Your task to perform on an android device: Show me productivity apps on the Play Store Image 0: 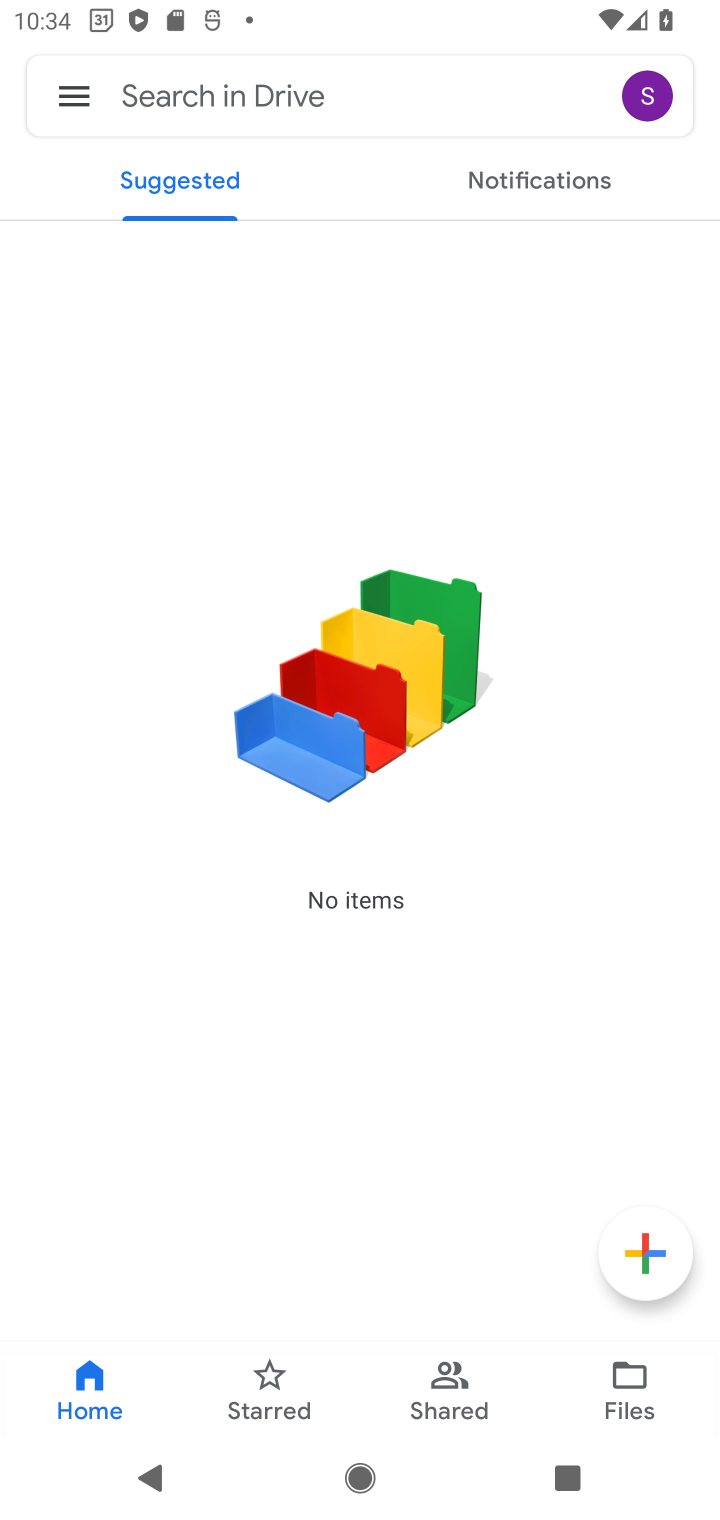
Step 0: press home button
Your task to perform on an android device: Show me productivity apps on the Play Store Image 1: 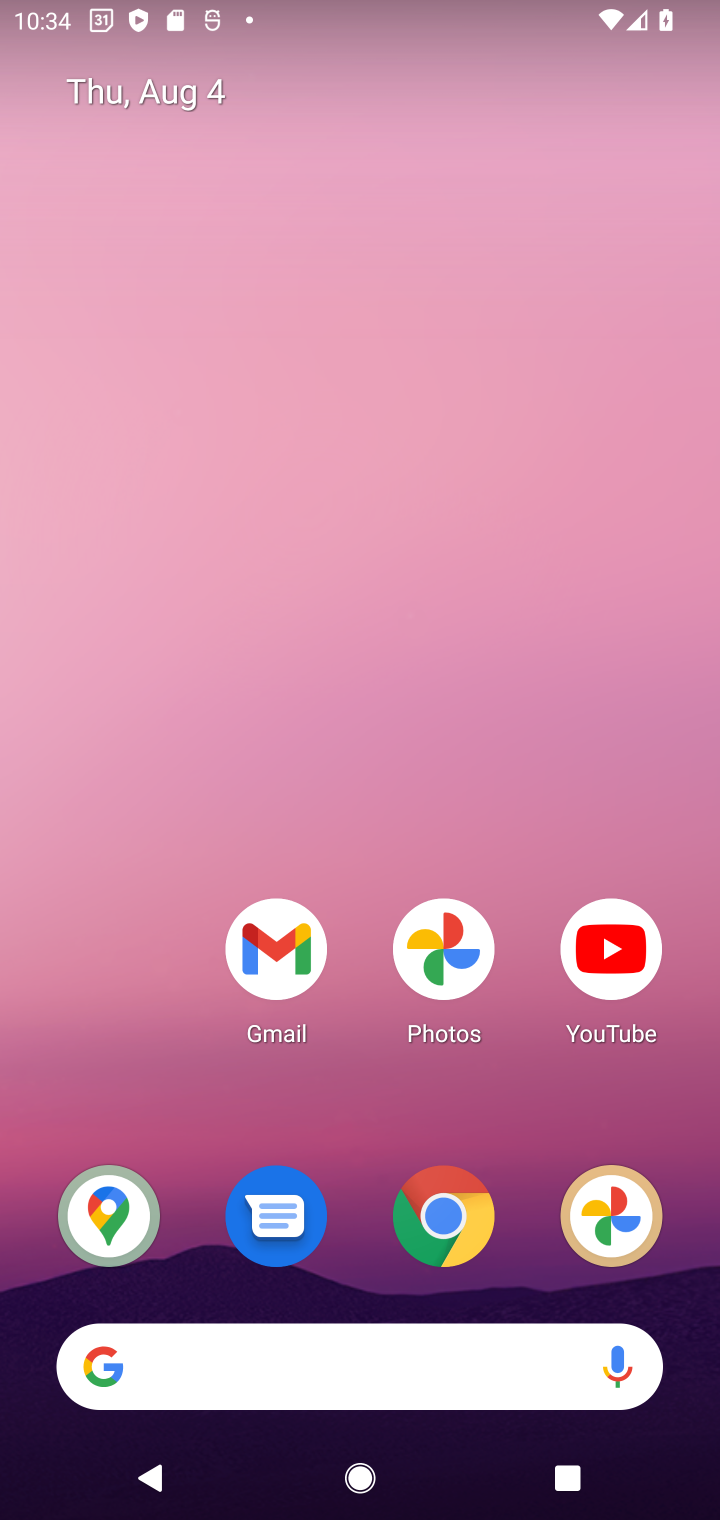
Step 1: drag from (304, 1384) to (452, 365)
Your task to perform on an android device: Show me productivity apps on the Play Store Image 2: 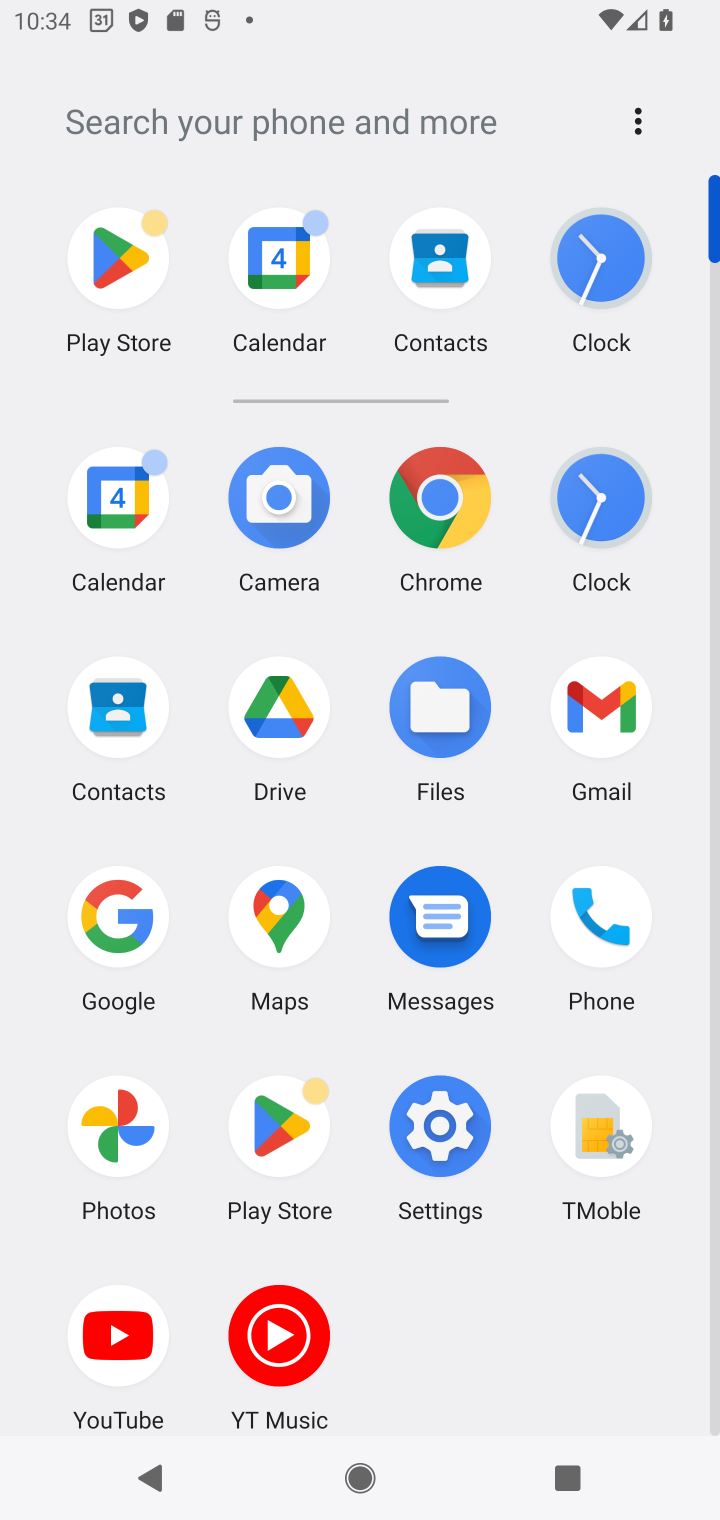
Step 2: click (287, 1125)
Your task to perform on an android device: Show me productivity apps on the Play Store Image 3: 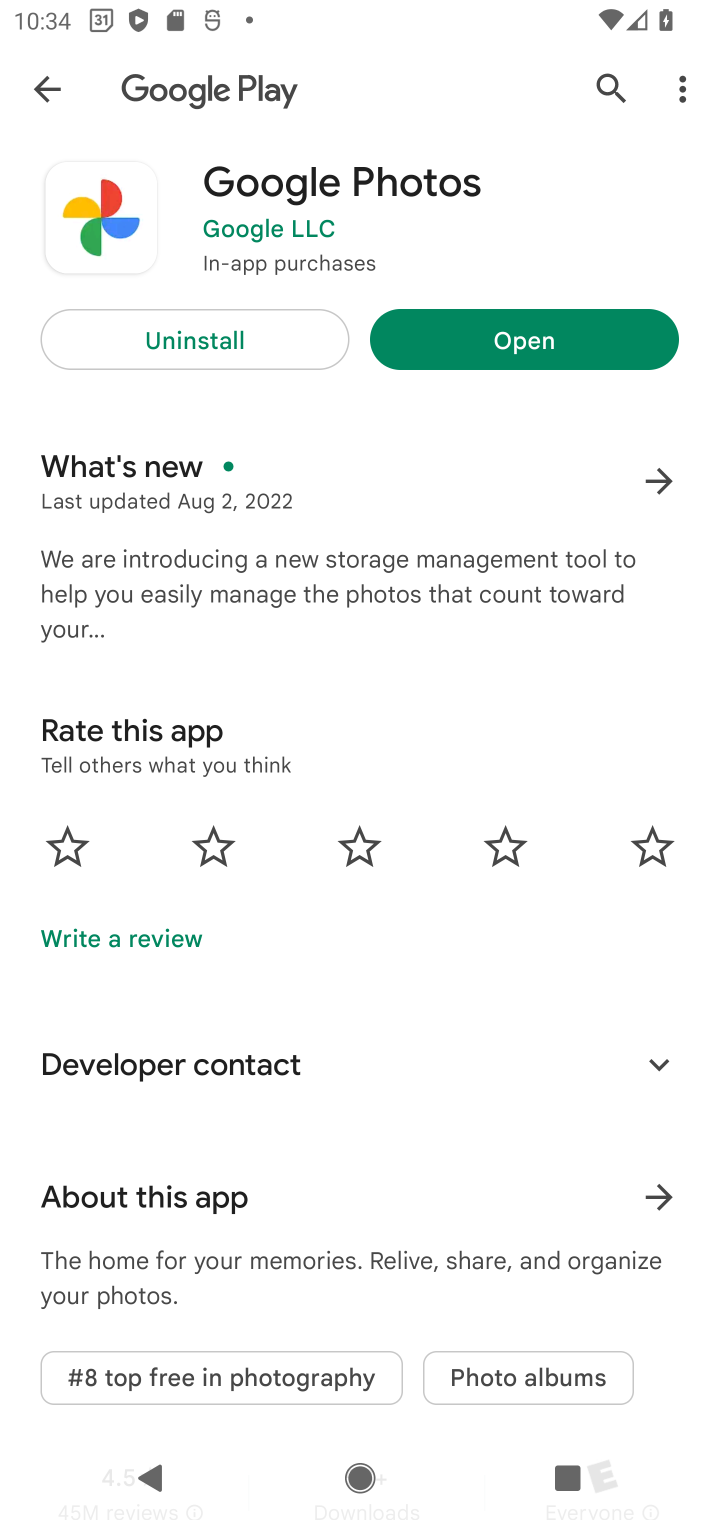
Step 3: press back button
Your task to perform on an android device: Show me productivity apps on the Play Store Image 4: 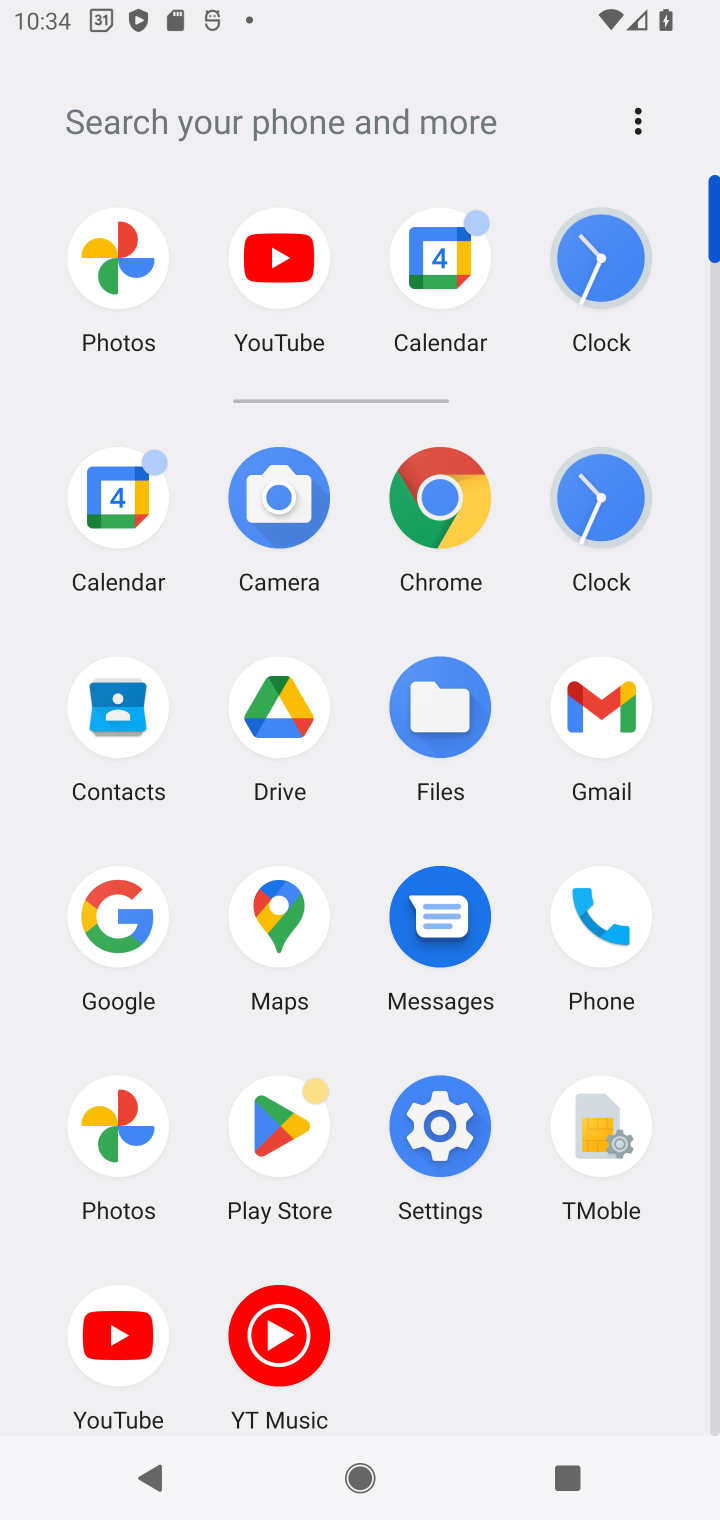
Step 4: click (282, 1131)
Your task to perform on an android device: Show me productivity apps on the Play Store Image 5: 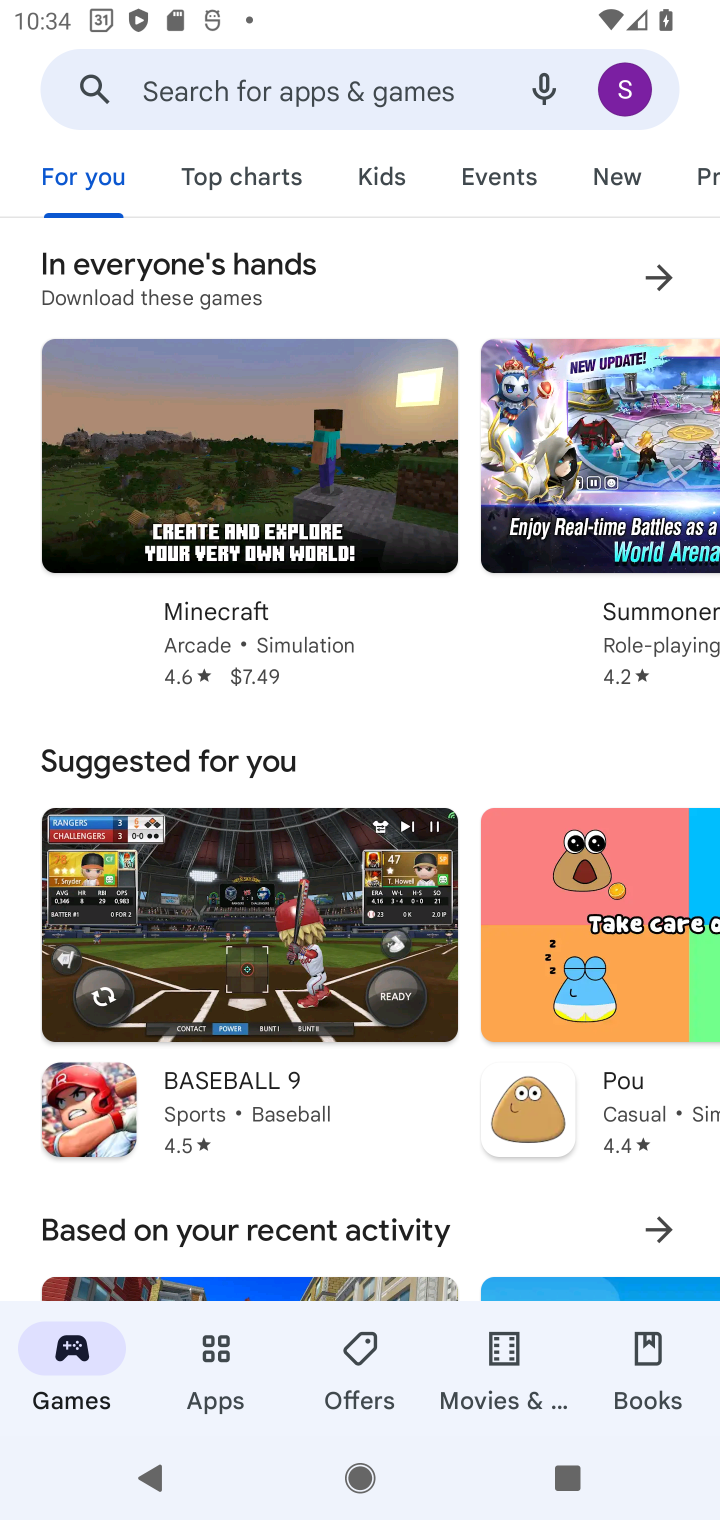
Step 5: click (203, 1355)
Your task to perform on an android device: Show me productivity apps on the Play Store Image 6: 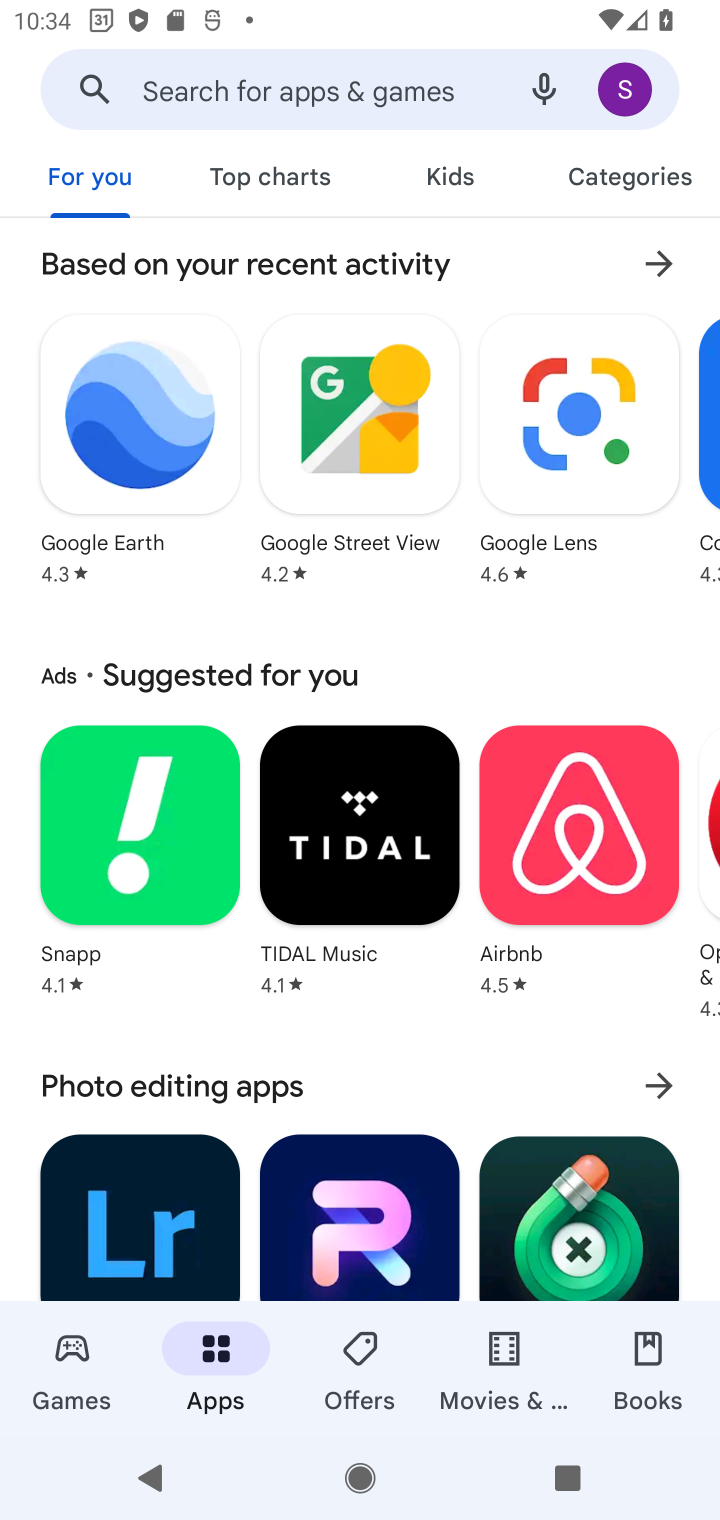
Step 6: click (640, 189)
Your task to perform on an android device: Show me productivity apps on the Play Store Image 7: 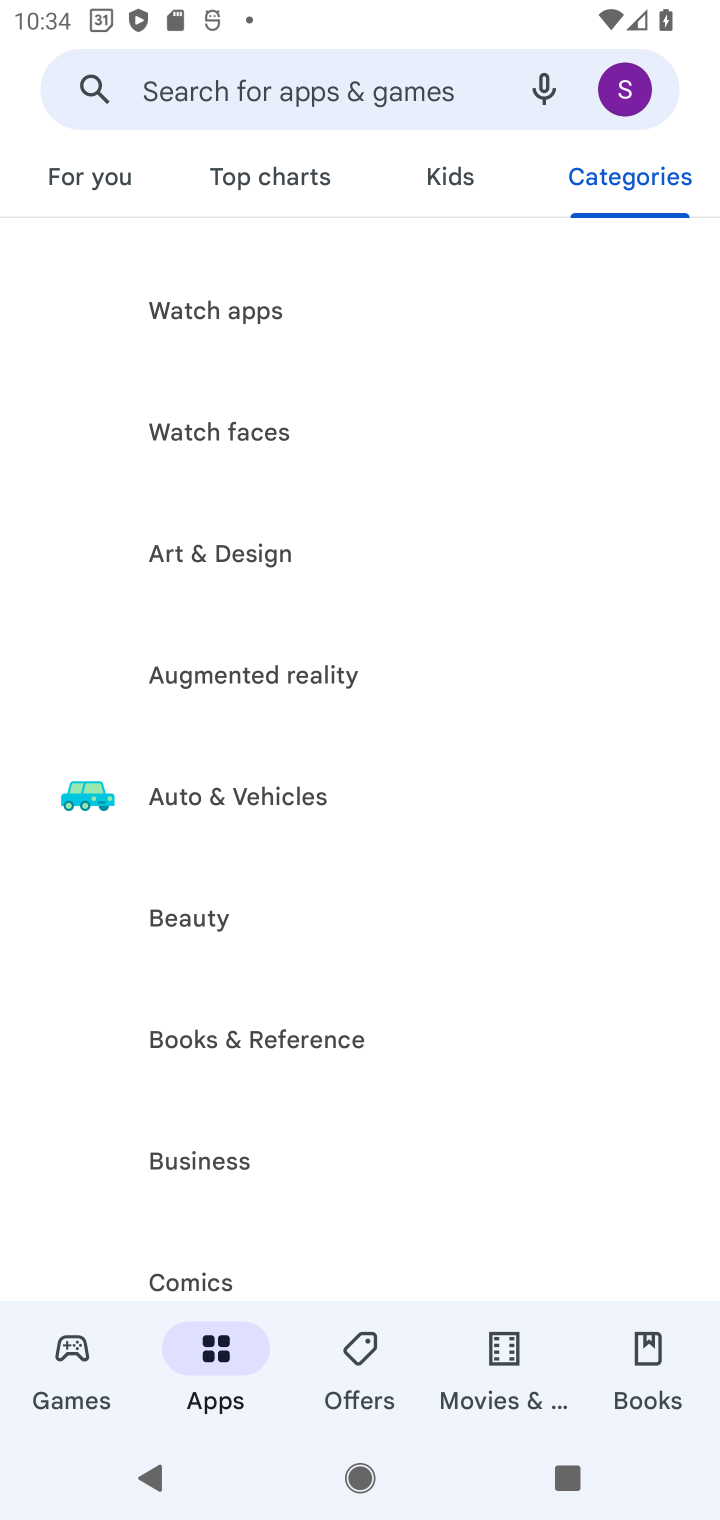
Step 7: drag from (198, 969) to (212, 661)
Your task to perform on an android device: Show me productivity apps on the Play Store Image 8: 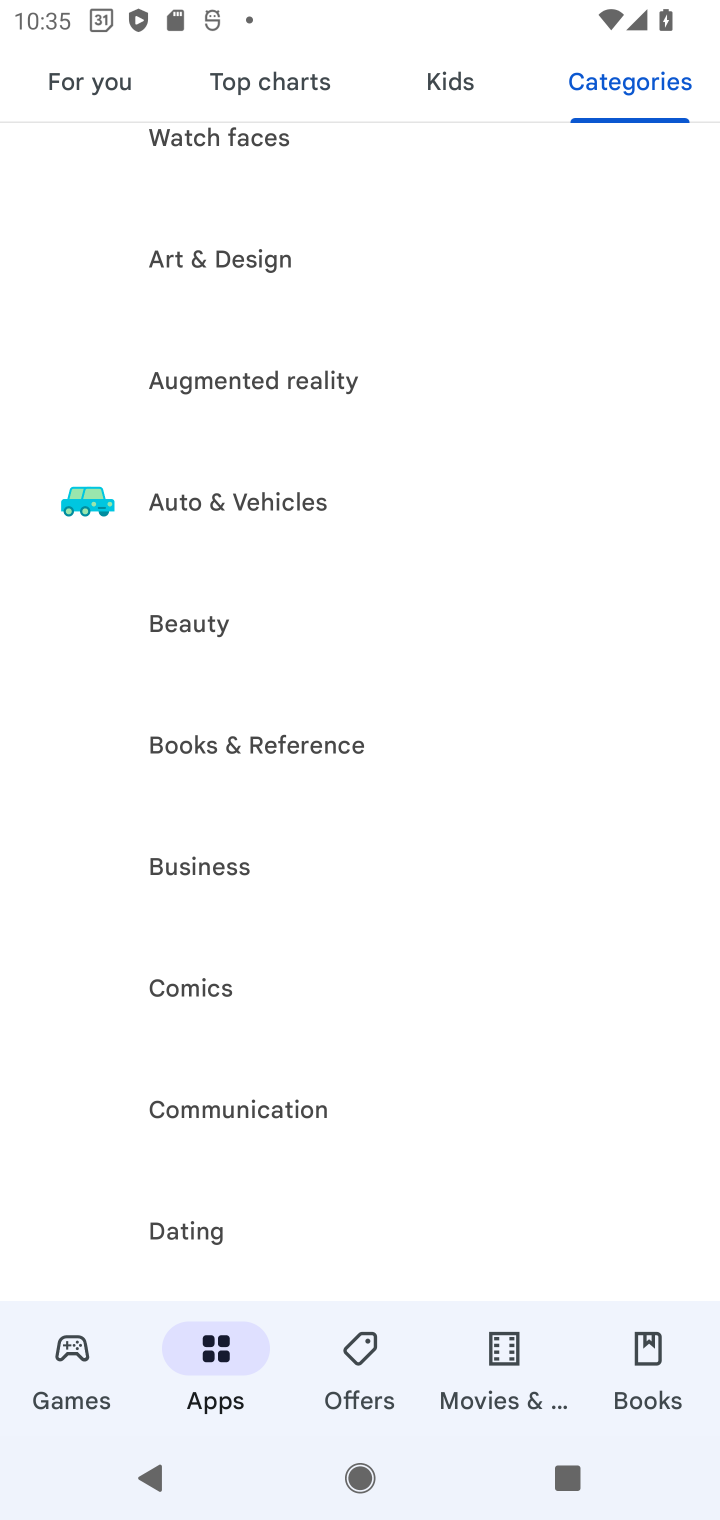
Step 8: drag from (183, 931) to (253, 662)
Your task to perform on an android device: Show me productivity apps on the Play Store Image 9: 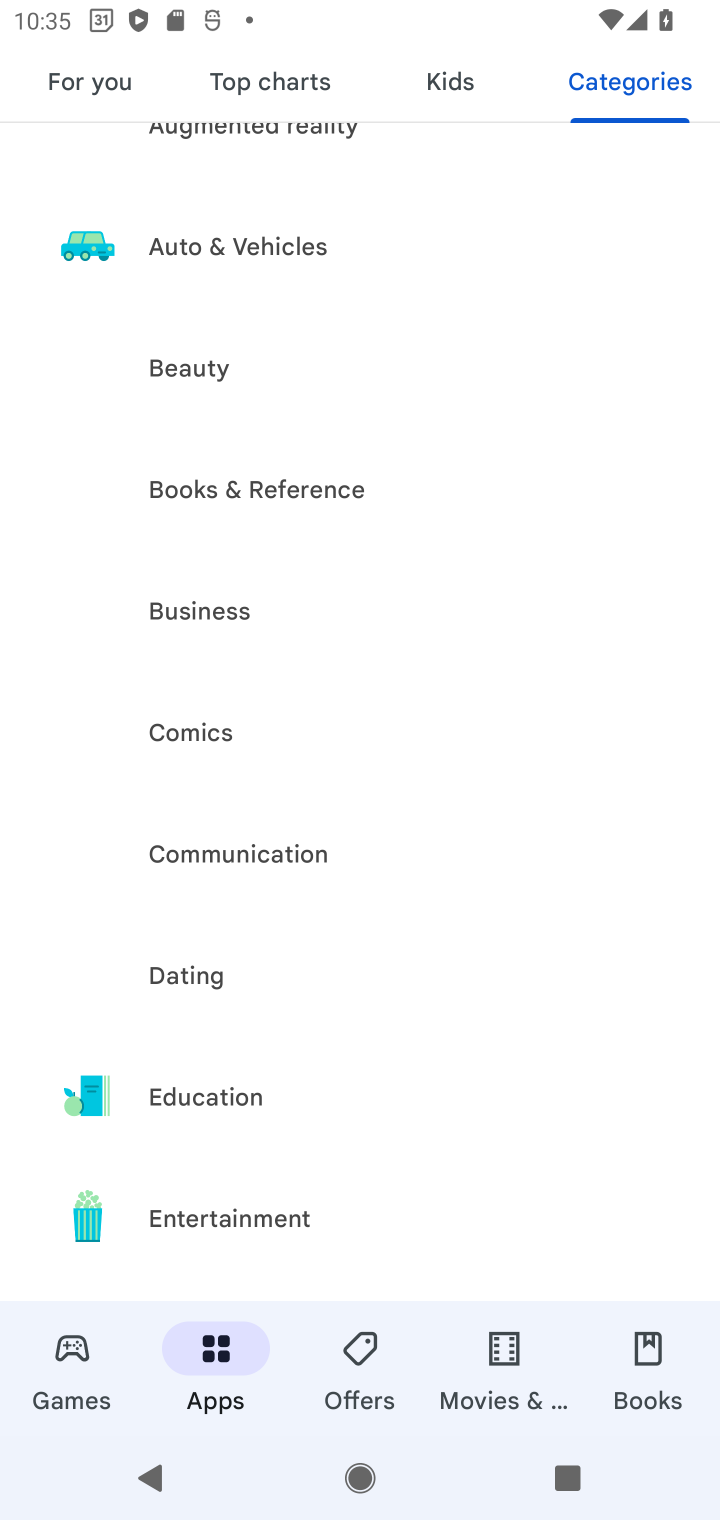
Step 9: drag from (204, 895) to (219, 629)
Your task to perform on an android device: Show me productivity apps on the Play Store Image 10: 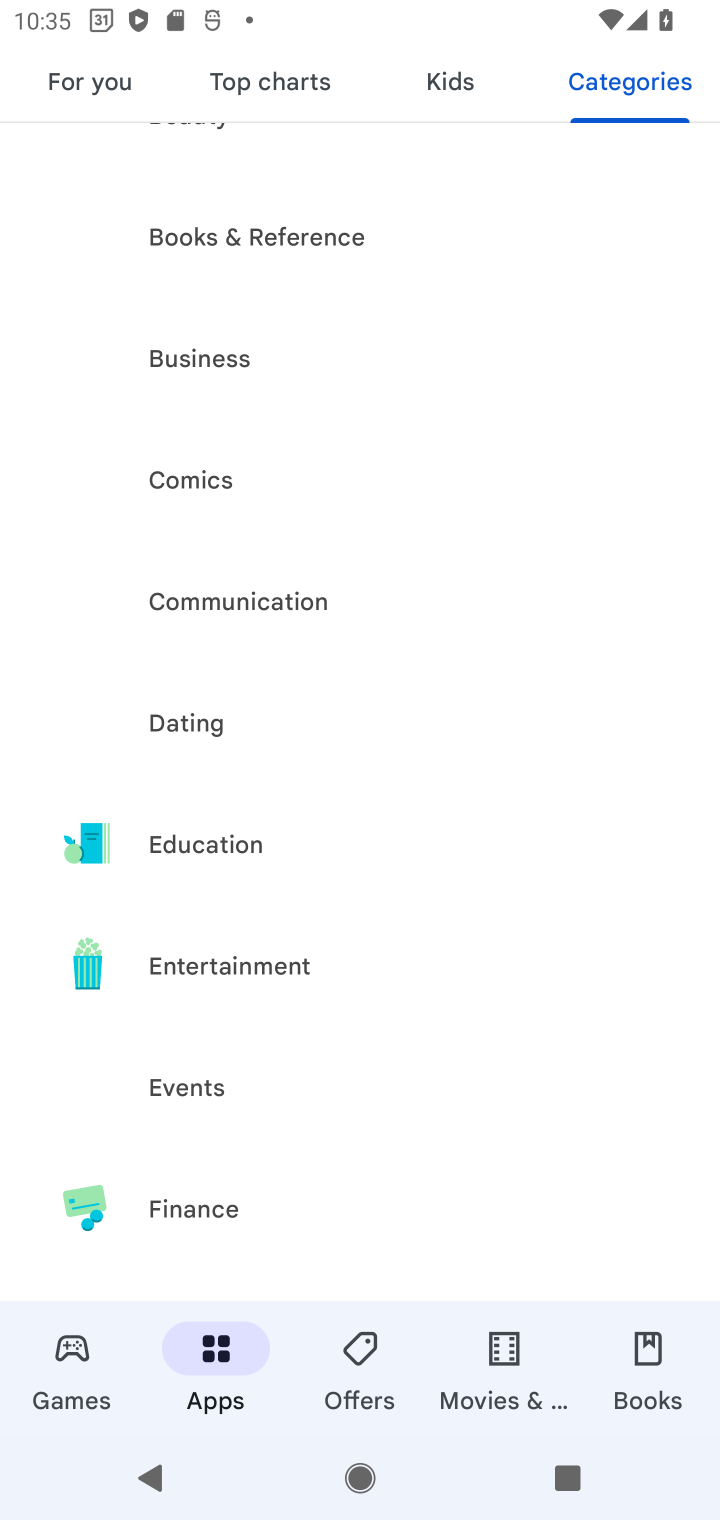
Step 10: drag from (200, 894) to (254, 618)
Your task to perform on an android device: Show me productivity apps on the Play Store Image 11: 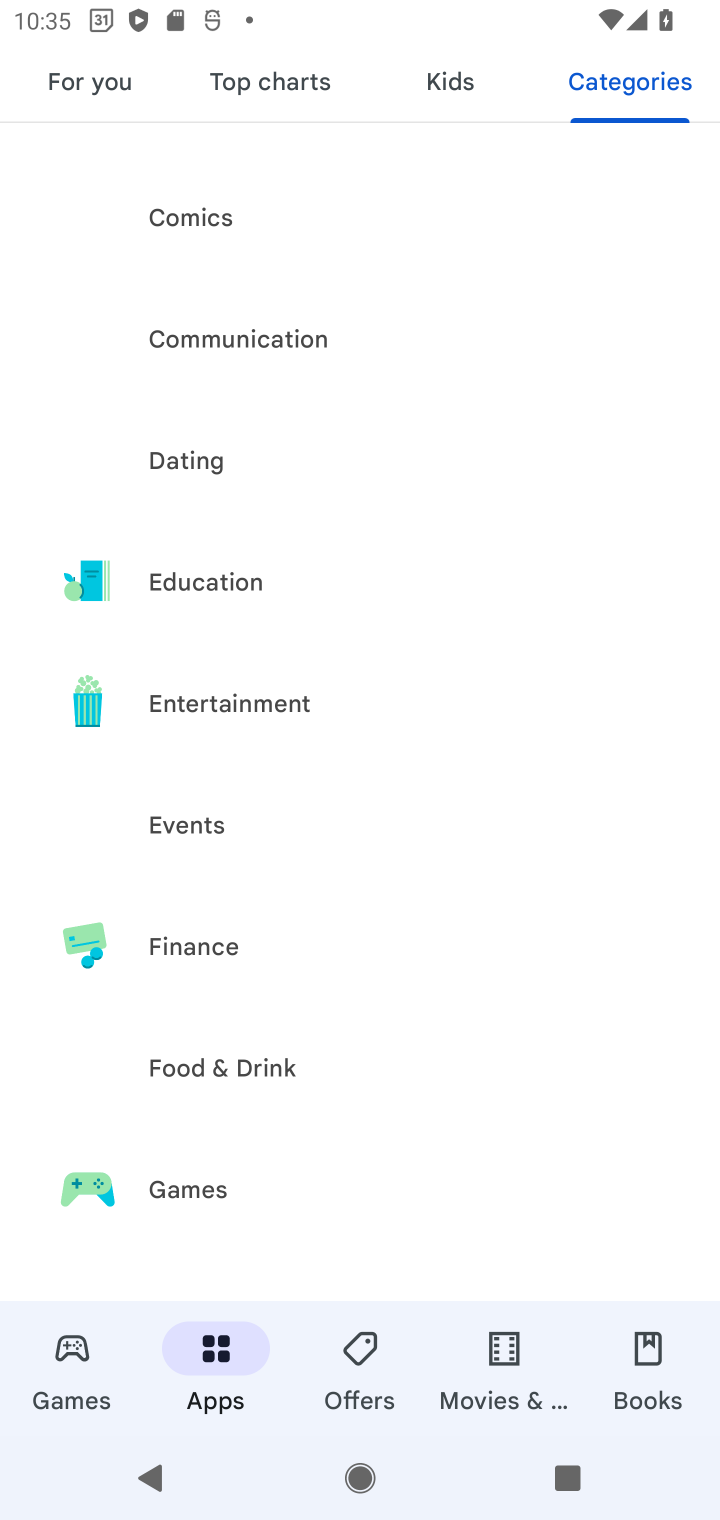
Step 11: drag from (161, 1025) to (244, 669)
Your task to perform on an android device: Show me productivity apps on the Play Store Image 12: 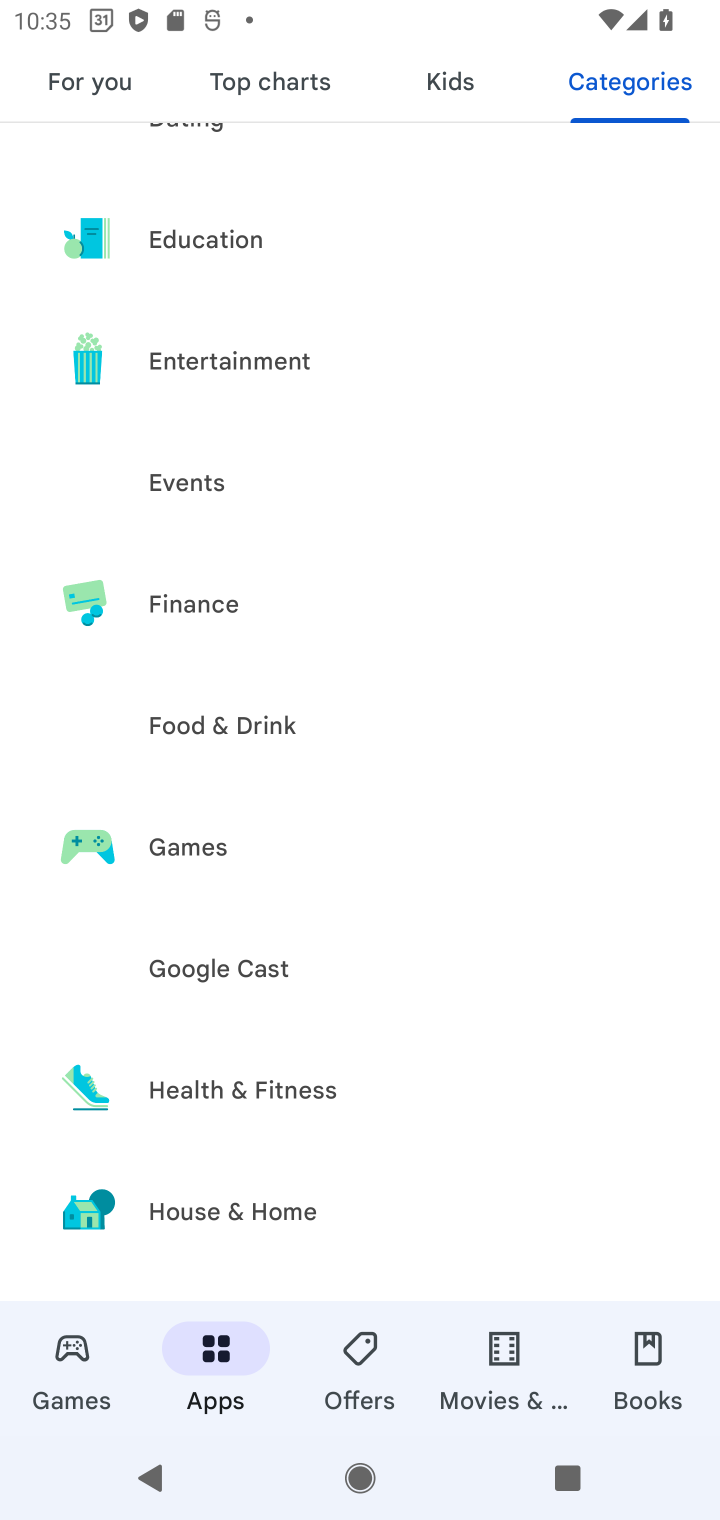
Step 12: drag from (168, 1148) to (315, 934)
Your task to perform on an android device: Show me productivity apps on the Play Store Image 13: 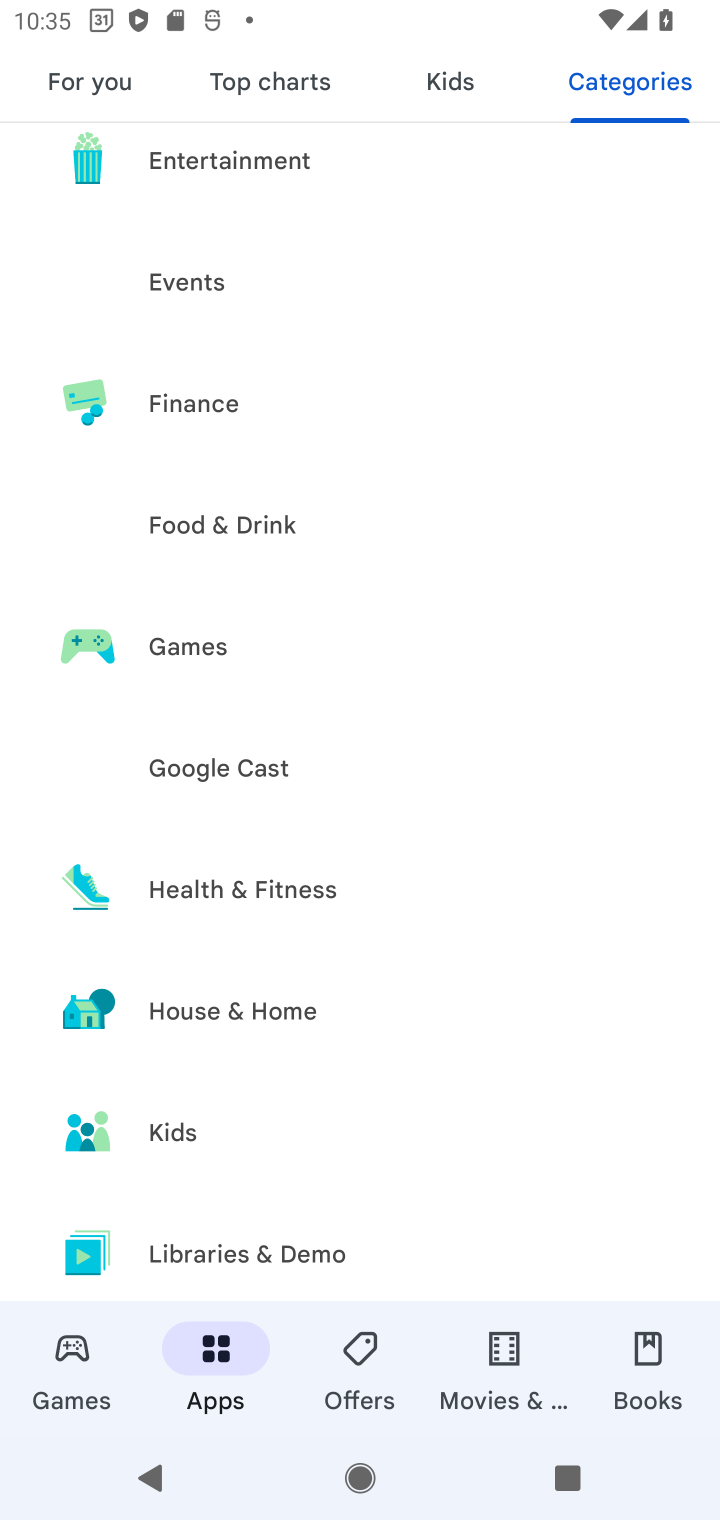
Step 13: drag from (195, 1079) to (331, 888)
Your task to perform on an android device: Show me productivity apps on the Play Store Image 14: 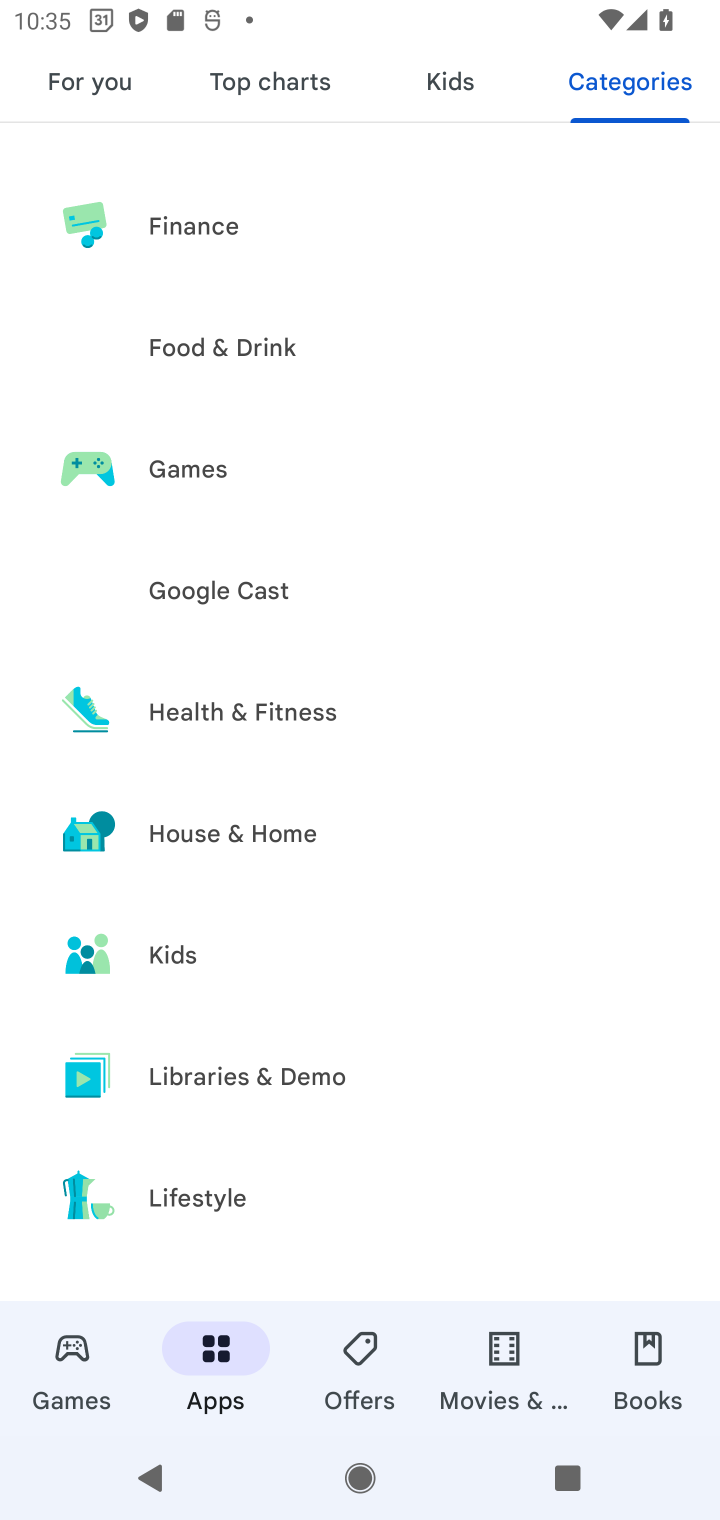
Step 14: drag from (161, 1168) to (276, 947)
Your task to perform on an android device: Show me productivity apps on the Play Store Image 15: 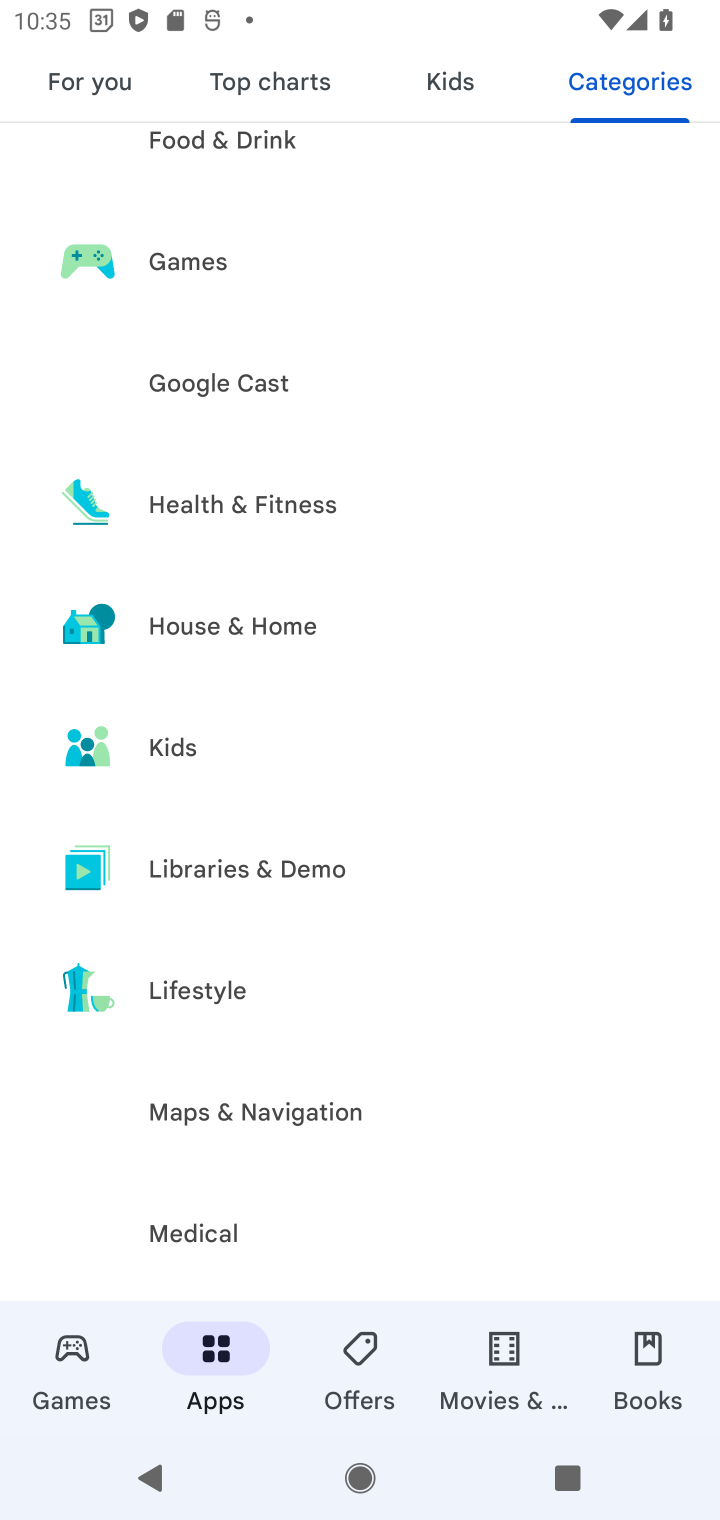
Step 15: drag from (191, 1150) to (343, 946)
Your task to perform on an android device: Show me productivity apps on the Play Store Image 16: 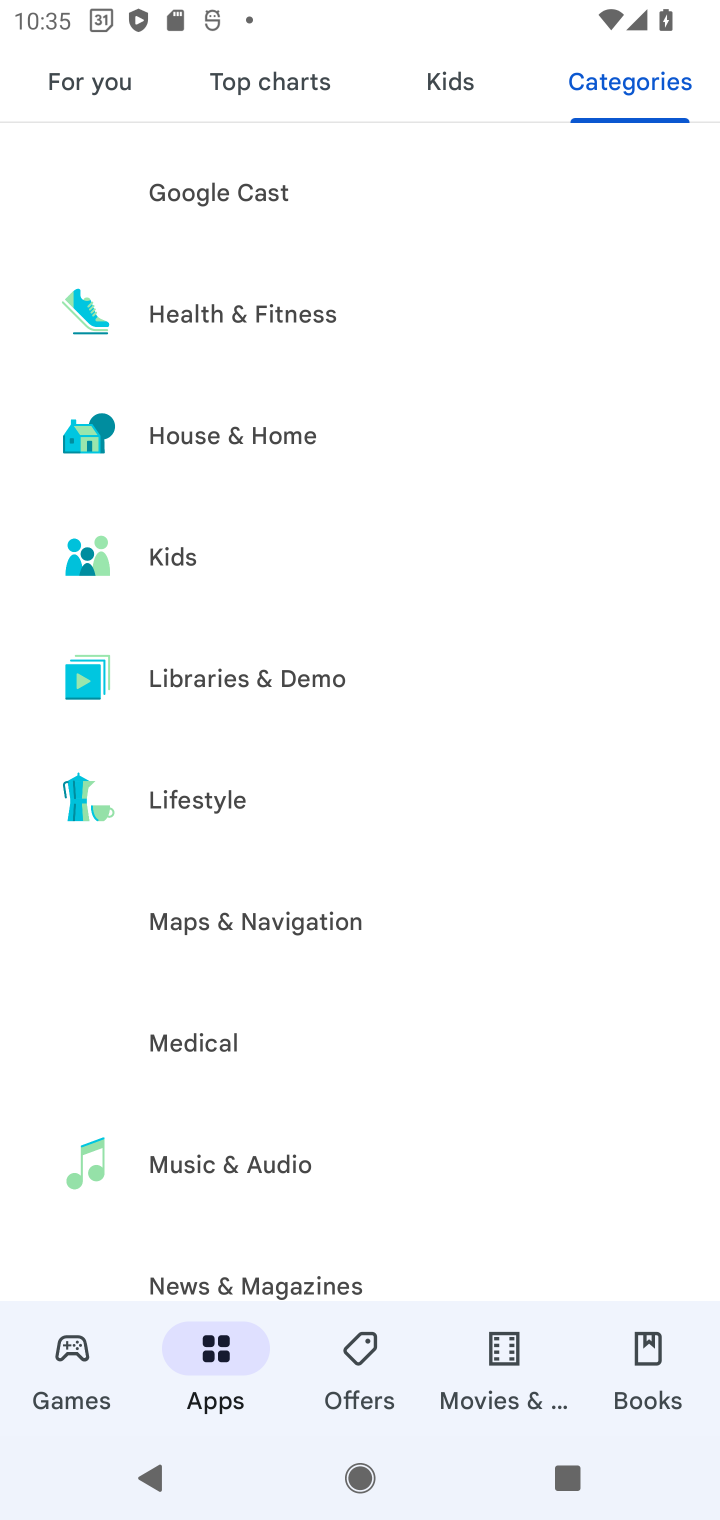
Step 16: drag from (234, 1106) to (399, 878)
Your task to perform on an android device: Show me productivity apps on the Play Store Image 17: 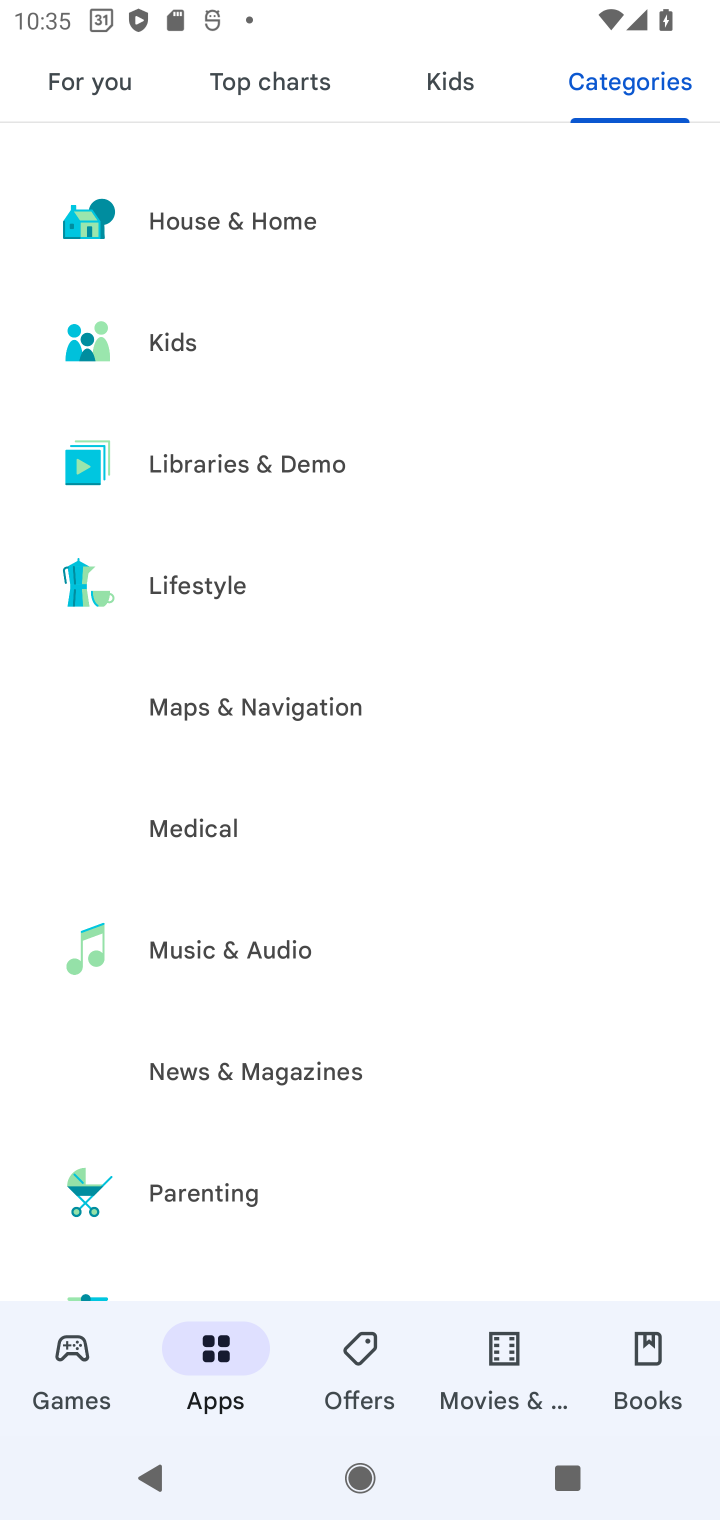
Step 17: drag from (202, 1132) to (289, 767)
Your task to perform on an android device: Show me productivity apps on the Play Store Image 18: 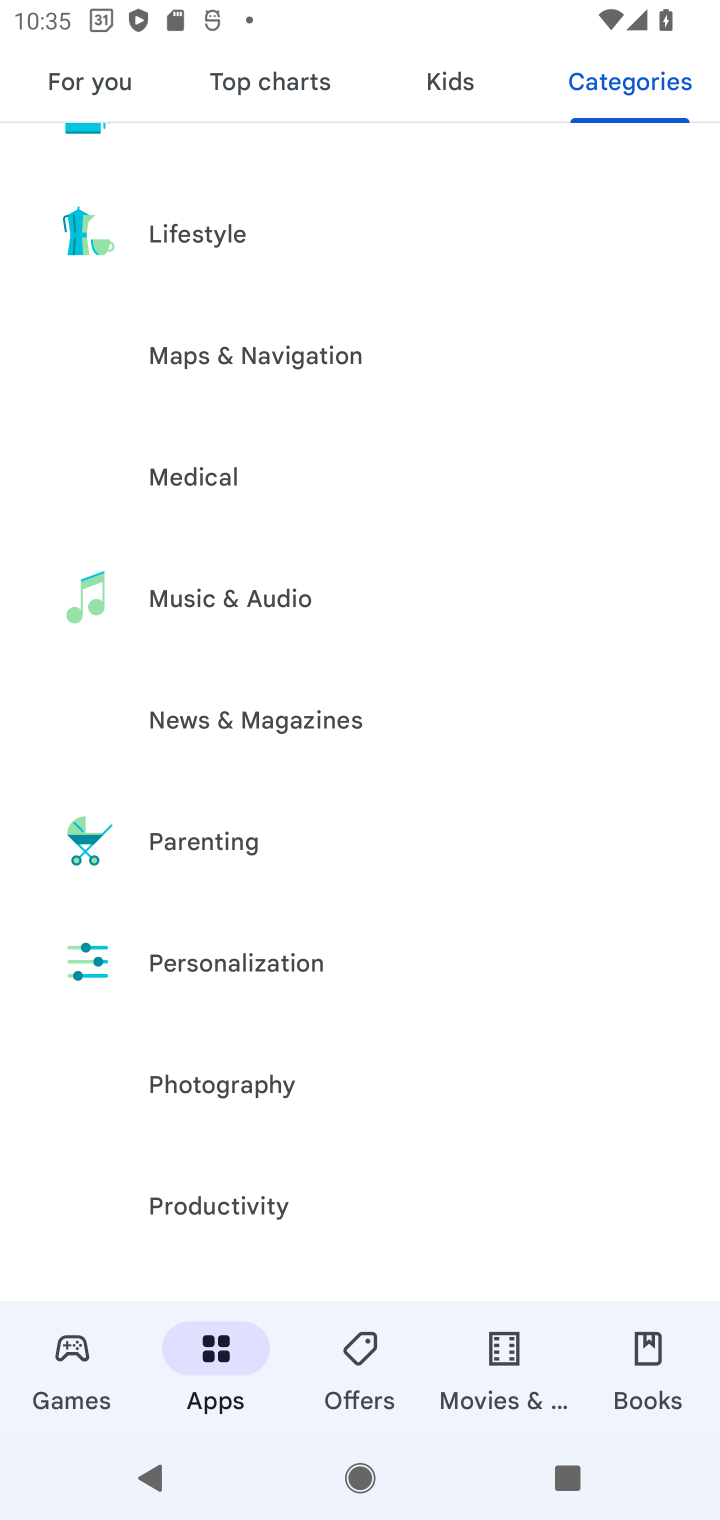
Step 18: drag from (185, 1154) to (306, 988)
Your task to perform on an android device: Show me productivity apps on the Play Store Image 19: 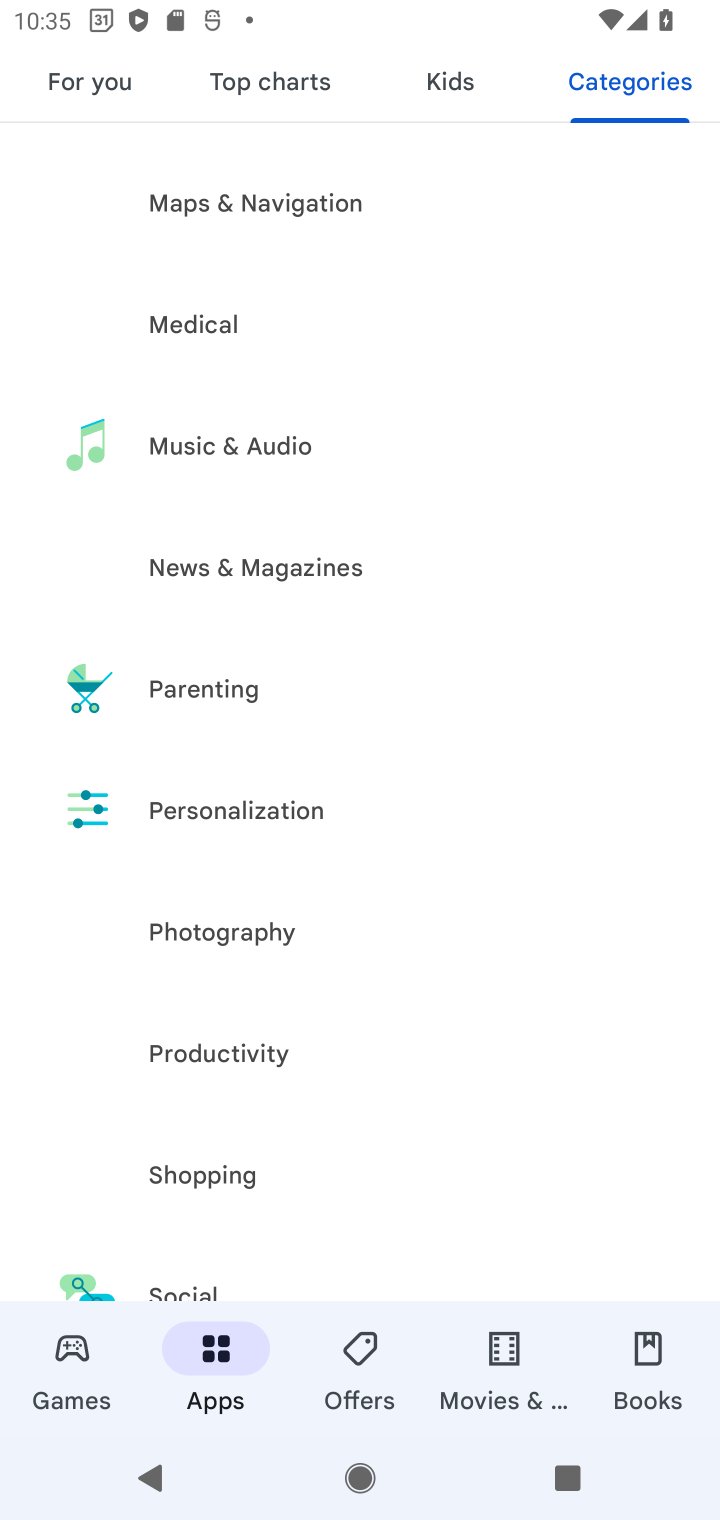
Step 19: click (250, 1057)
Your task to perform on an android device: Show me productivity apps on the Play Store Image 20: 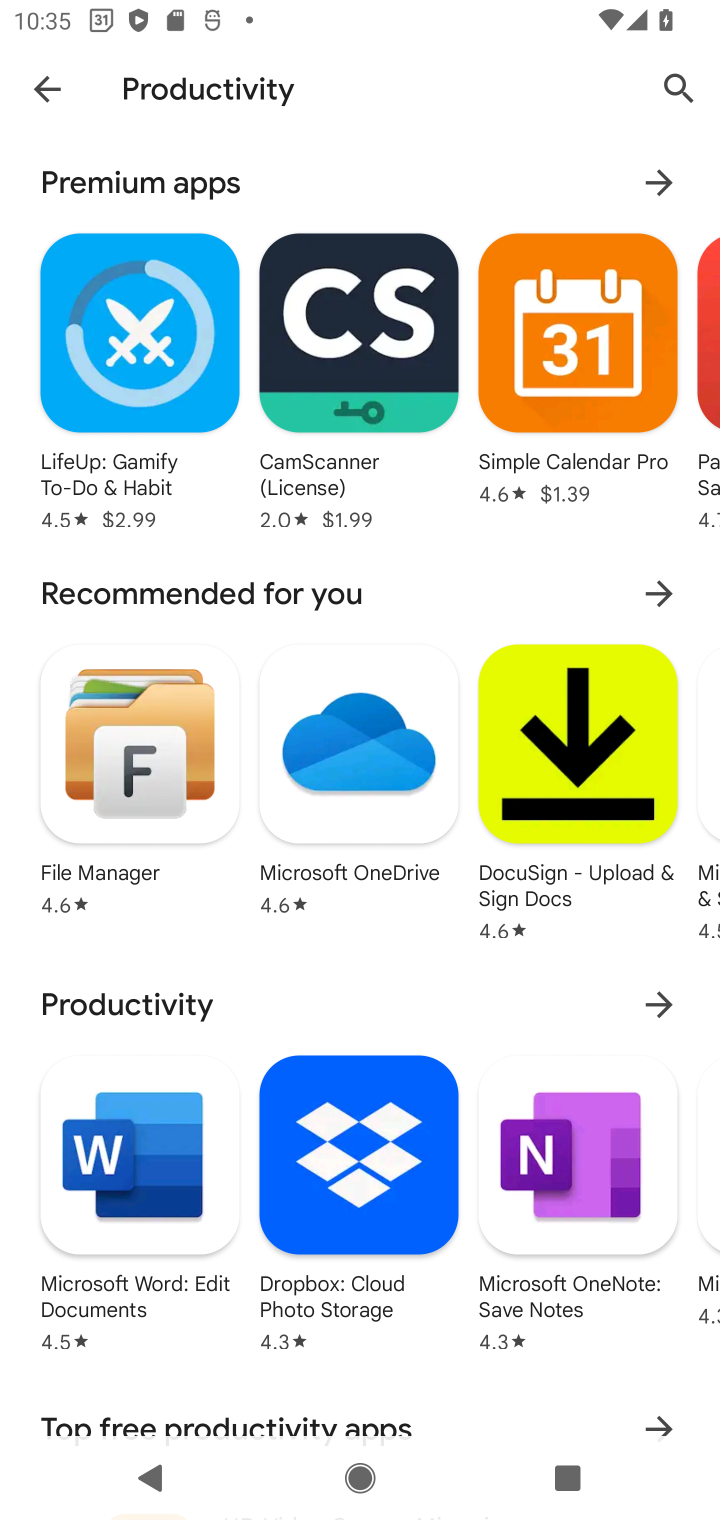
Step 20: task complete